Your task to perform on an android device: Open ESPN.com Image 0: 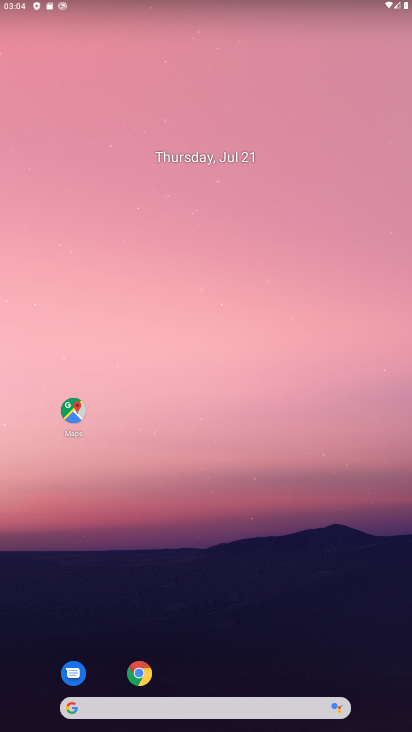
Step 0: drag from (342, 635) to (192, 51)
Your task to perform on an android device: Open ESPN.com Image 1: 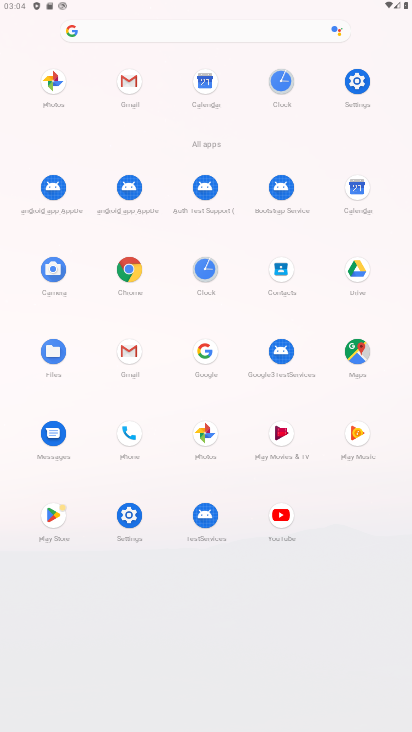
Step 1: click (129, 263)
Your task to perform on an android device: Open ESPN.com Image 2: 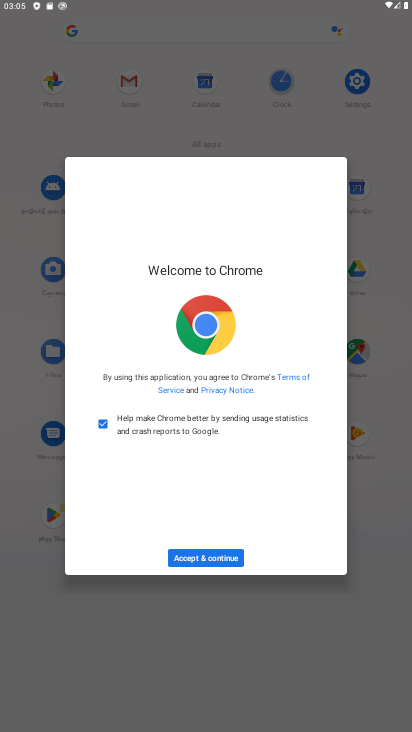
Step 2: click (221, 558)
Your task to perform on an android device: Open ESPN.com Image 3: 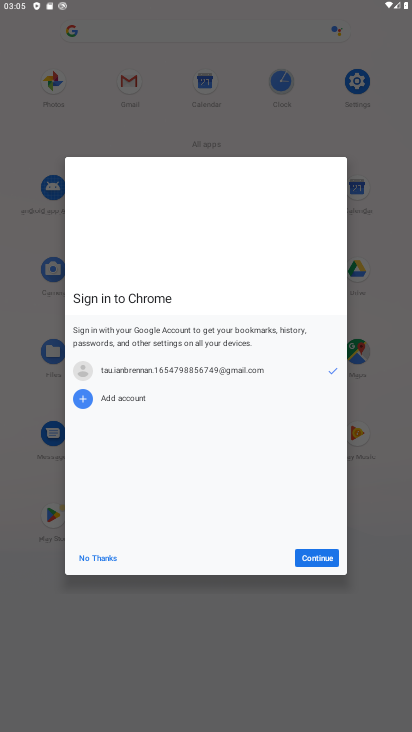
Step 3: click (309, 561)
Your task to perform on an android device: Open ESPN.com Image 4: 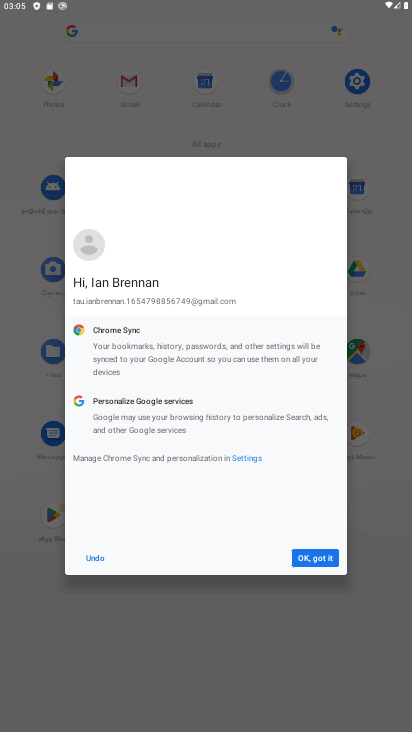
Step 4: click (309, 561)
Your task to perform on an android device: Open ESPN.com Image 5: 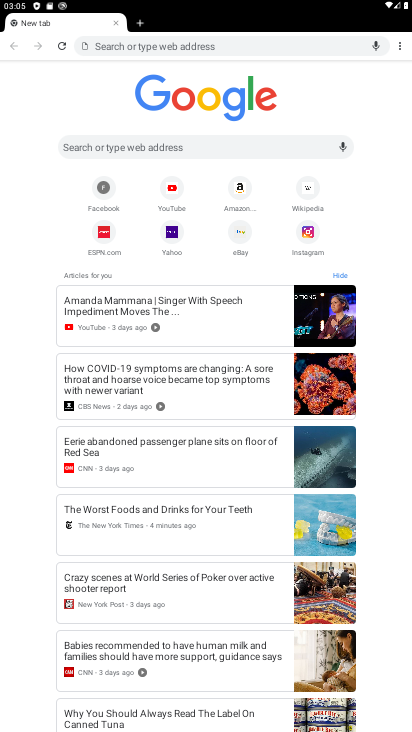
Step 5: click (249, 140)
Your task to perform on an android device: Open ESPN.com Image 6: 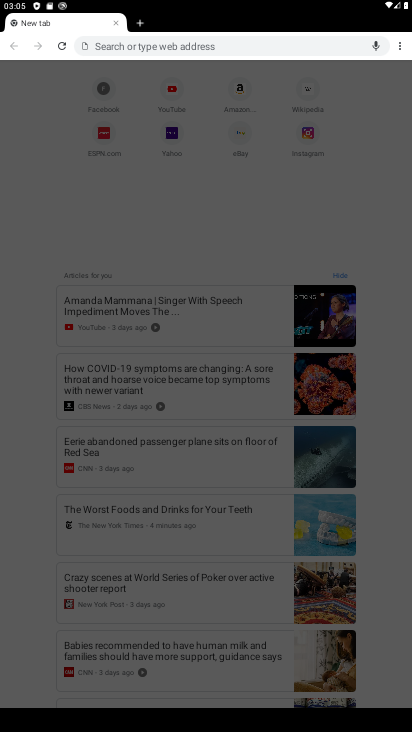
Step 6: type "espn.com"
Your task to perform on an android device: Open ESPN.com Image 7: 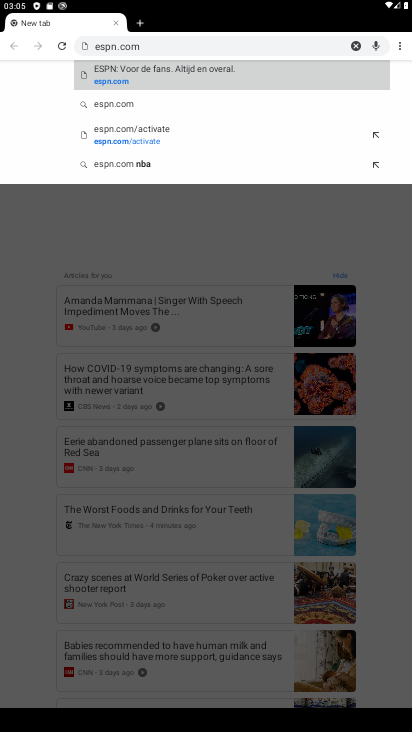
Step 7: click (132, 85)
Your task to perform on an android device: Open ESPN.com Image 8: 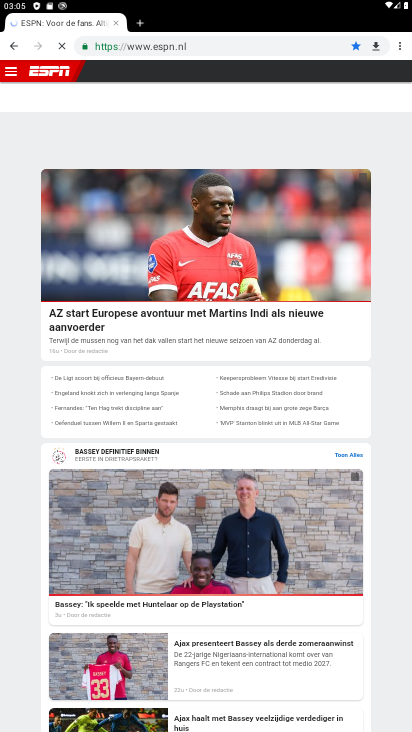
Step 8: task complete